Your task to perform on an android device: add a label to a message in the gmail app Image 0: 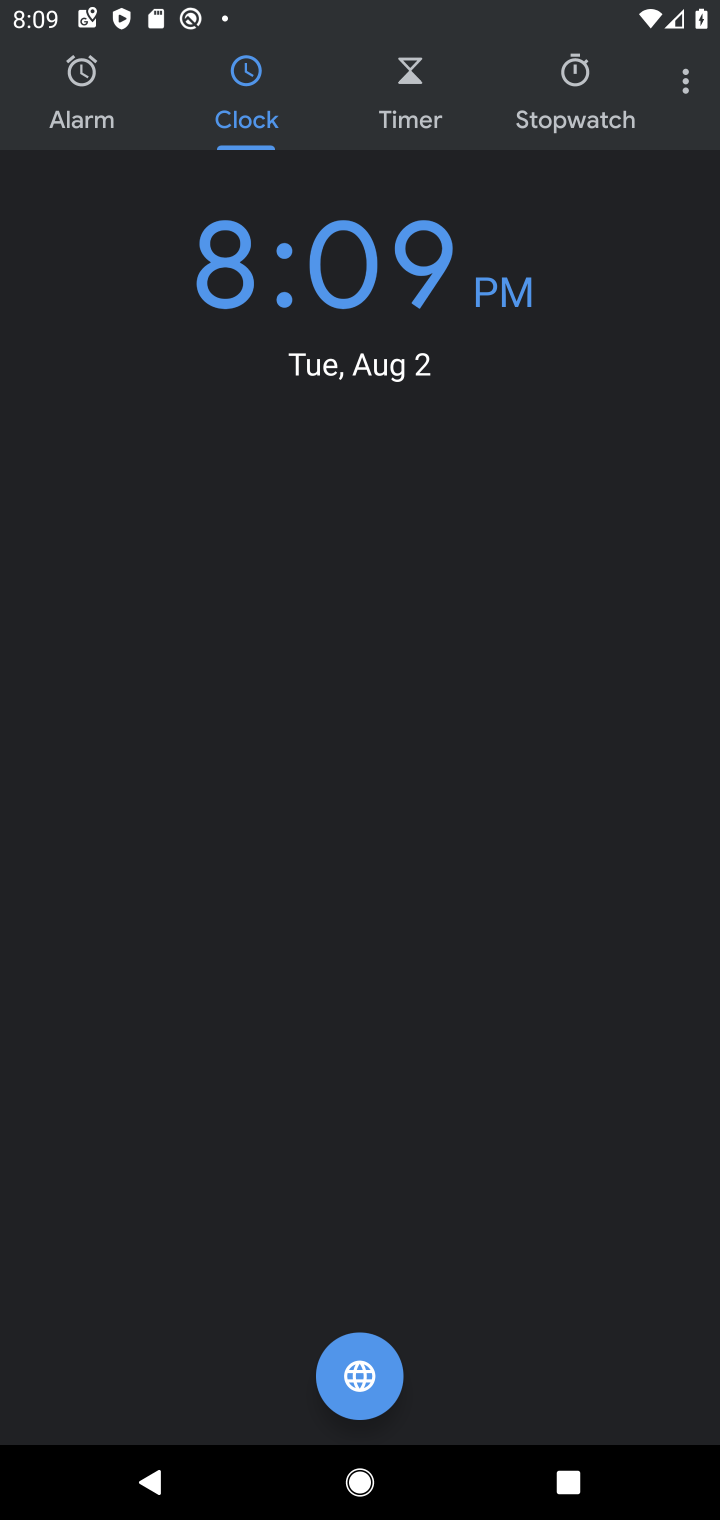
Step 0: press home button
Your task to perform on an android device: add a label to a message in the gmail app Image 1: 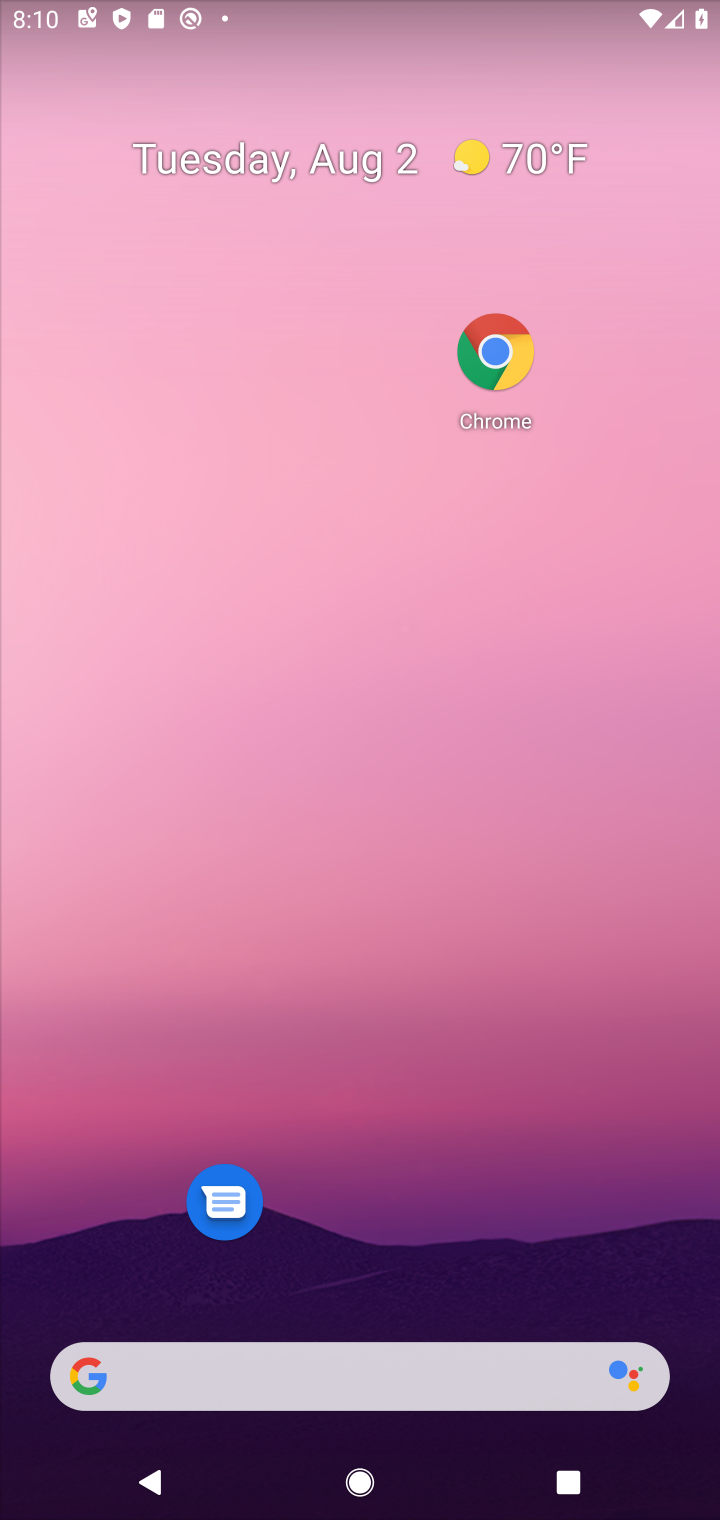
Step 1: drag from (355, 1231) to (409, 33)
Your task to perform on an android device: add a label to a message in the gmail app Image 2: 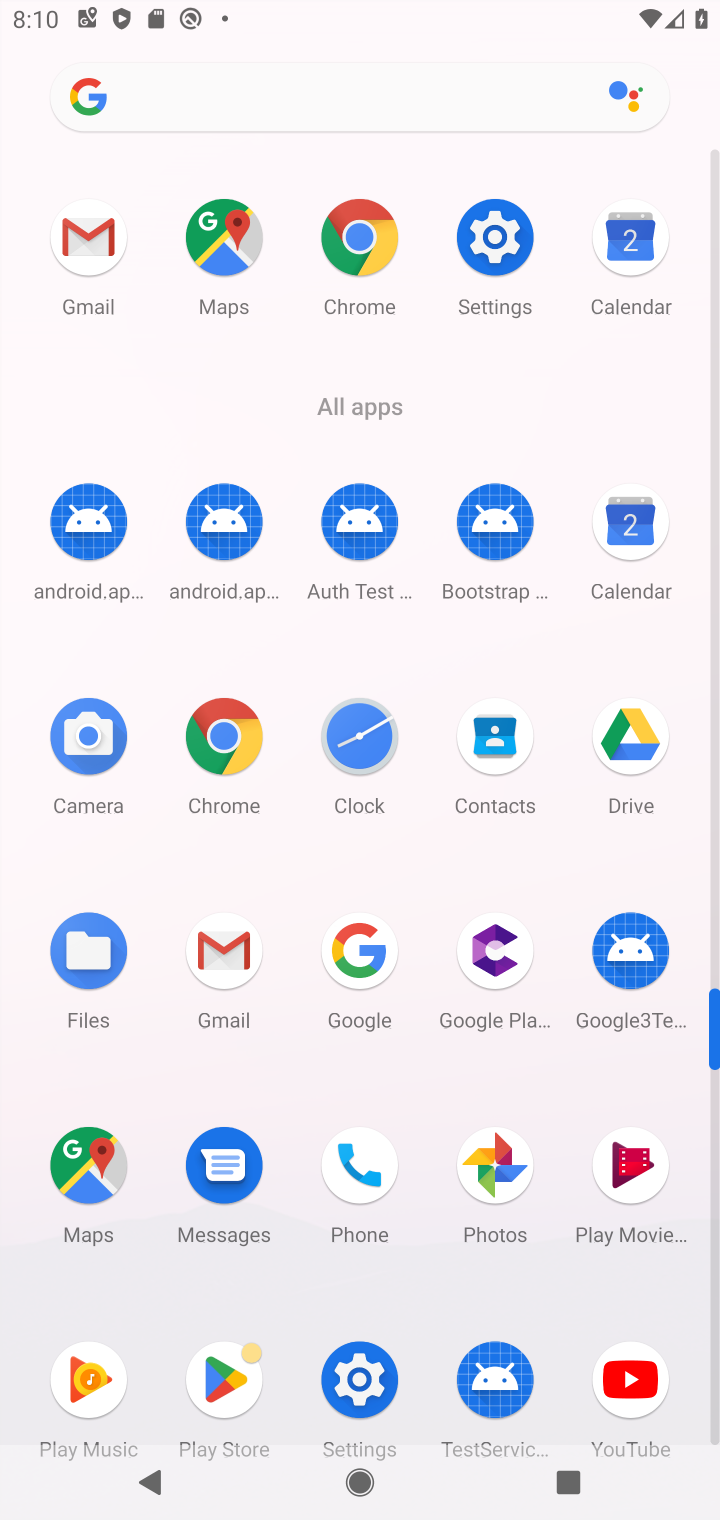
Step 2: click (95, 256)
Your task to perform on an android device: add a label to a message in the gmail app Image 3: 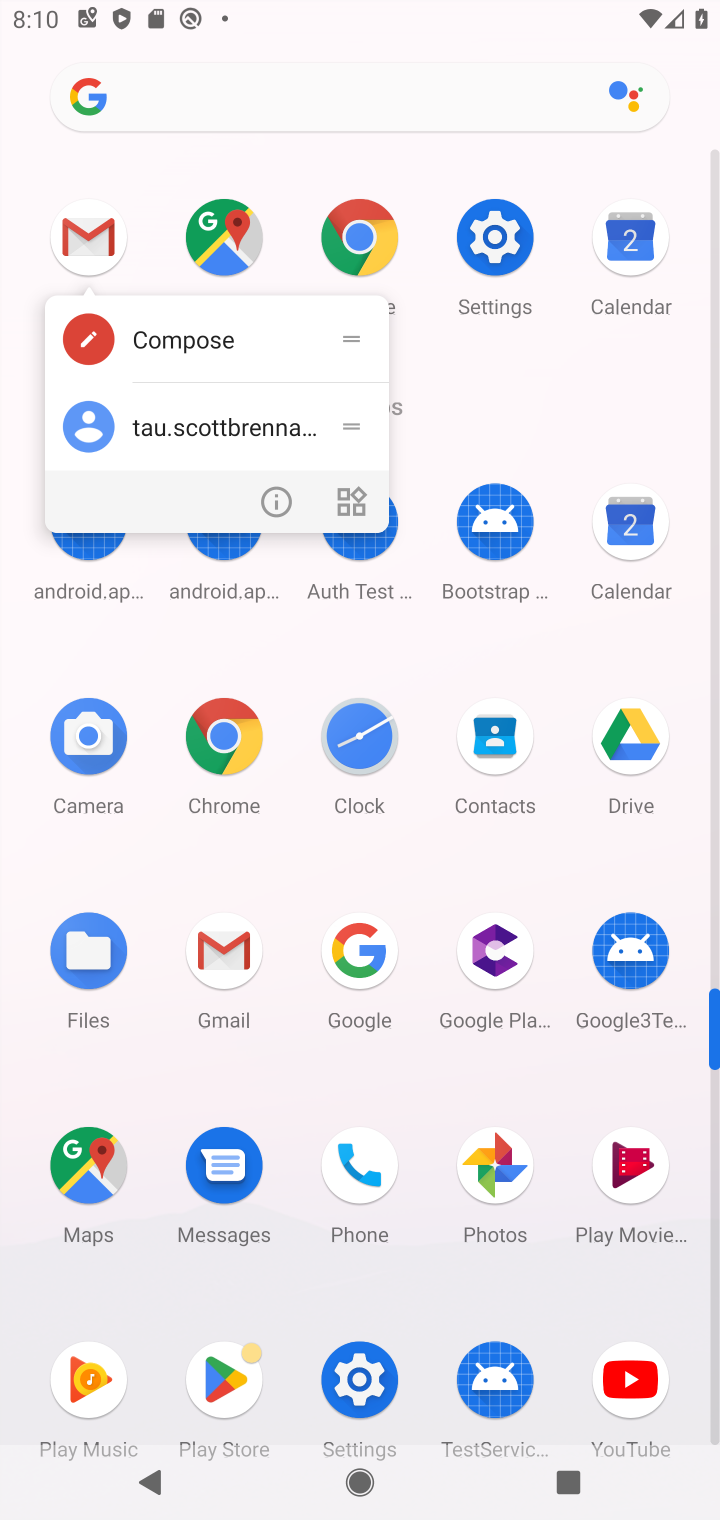
Step 3: click (96, 236)
Your task to perform on an android device: add a label to a message in the gmail app Image 4: 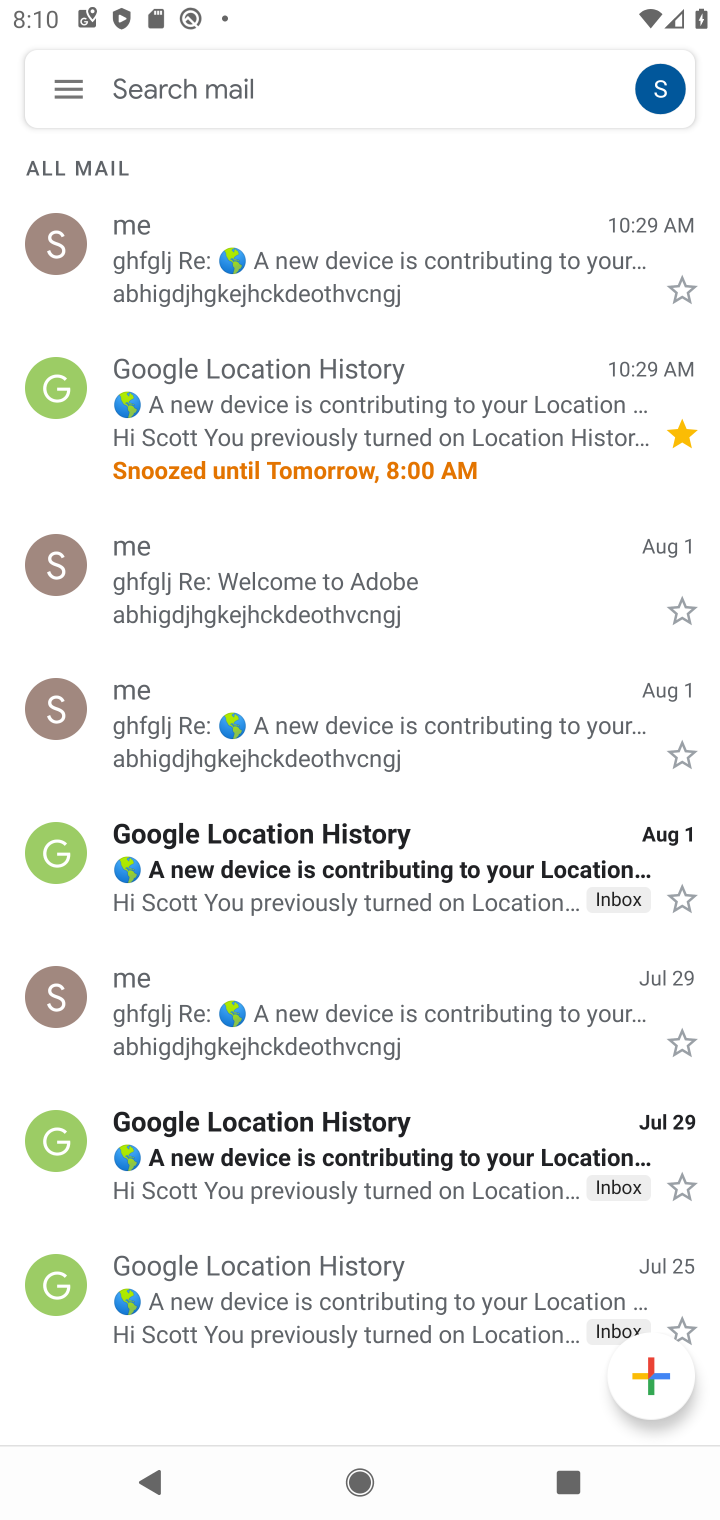
Step 4: click (329, 595)
Your task to perform on an android device: add a label to a message in the gmail app Image 5: 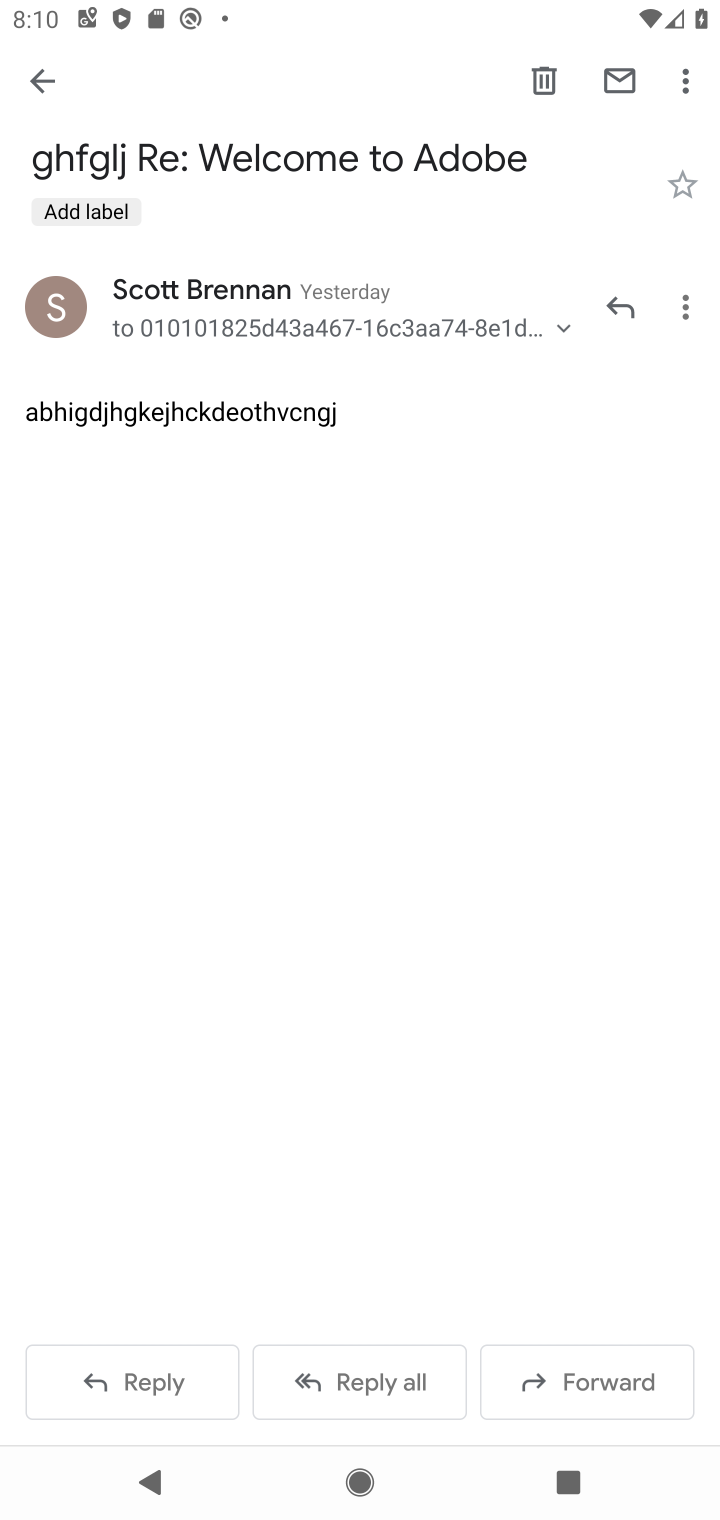
Step 5: click (84, 201)
Your task to perform on an android device: add a label to a message in the gmail app Image 6: 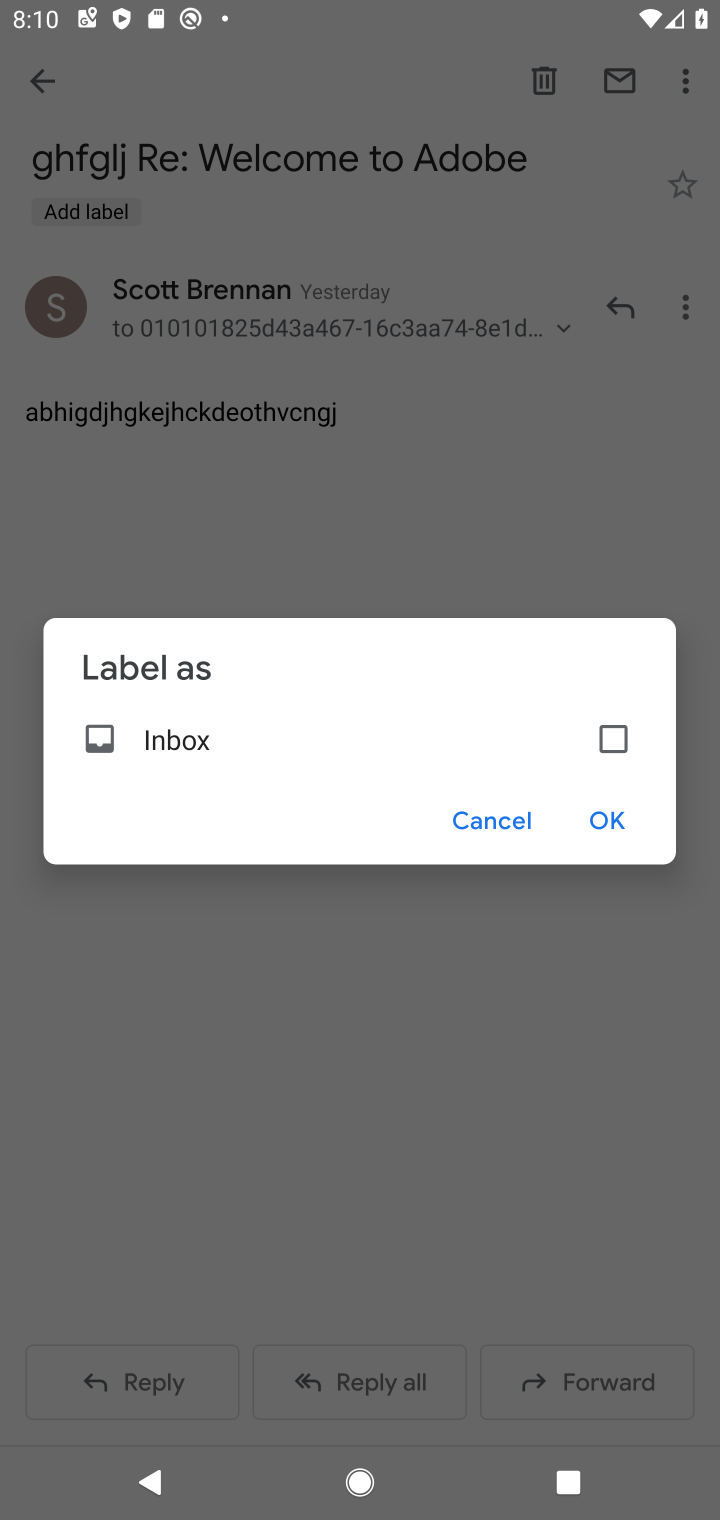
Step 6: click (608, 725)
Your task to perform on an android device: add a label to a message in the gmail app Image 7: 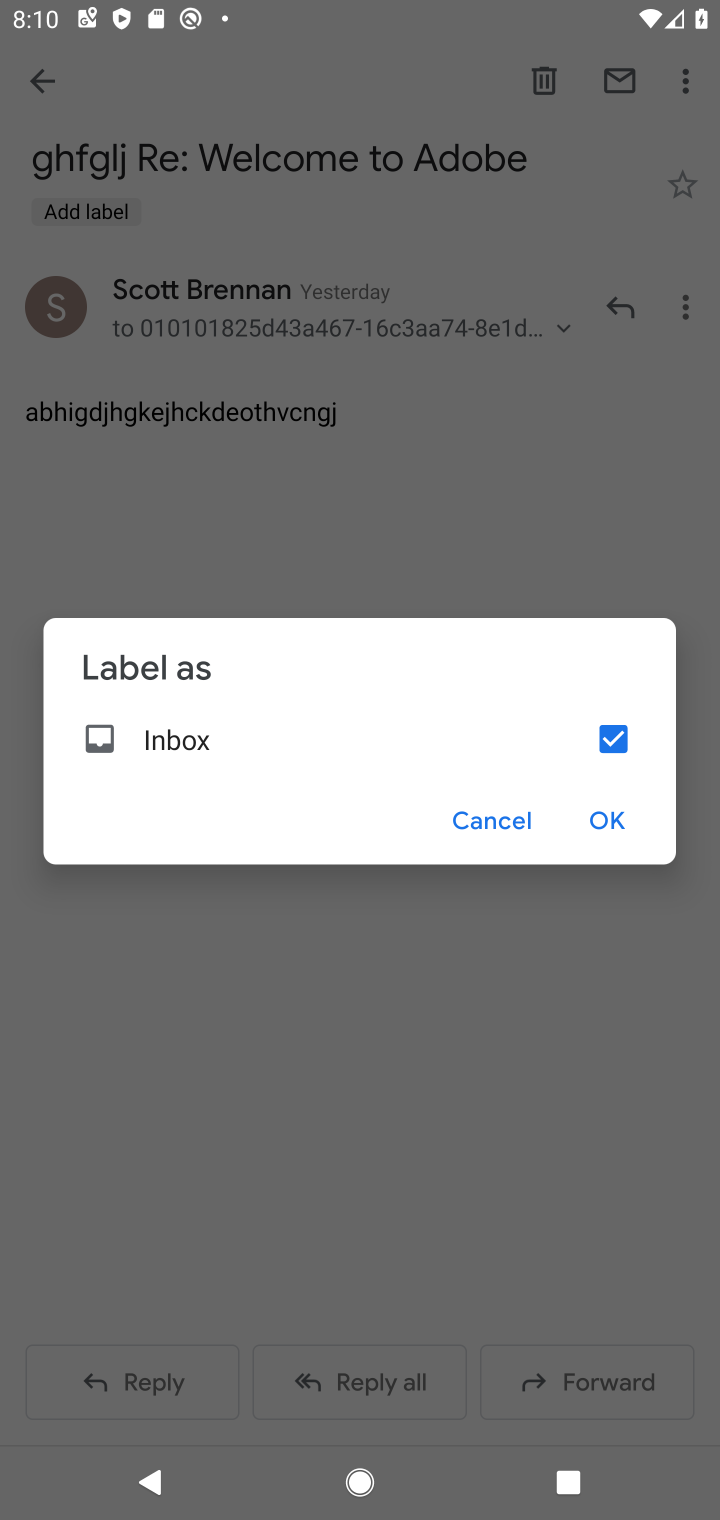
Step 7: click (600, 819)
Your task to perform on an android device: add a label to a message in the gmail app Image 8: 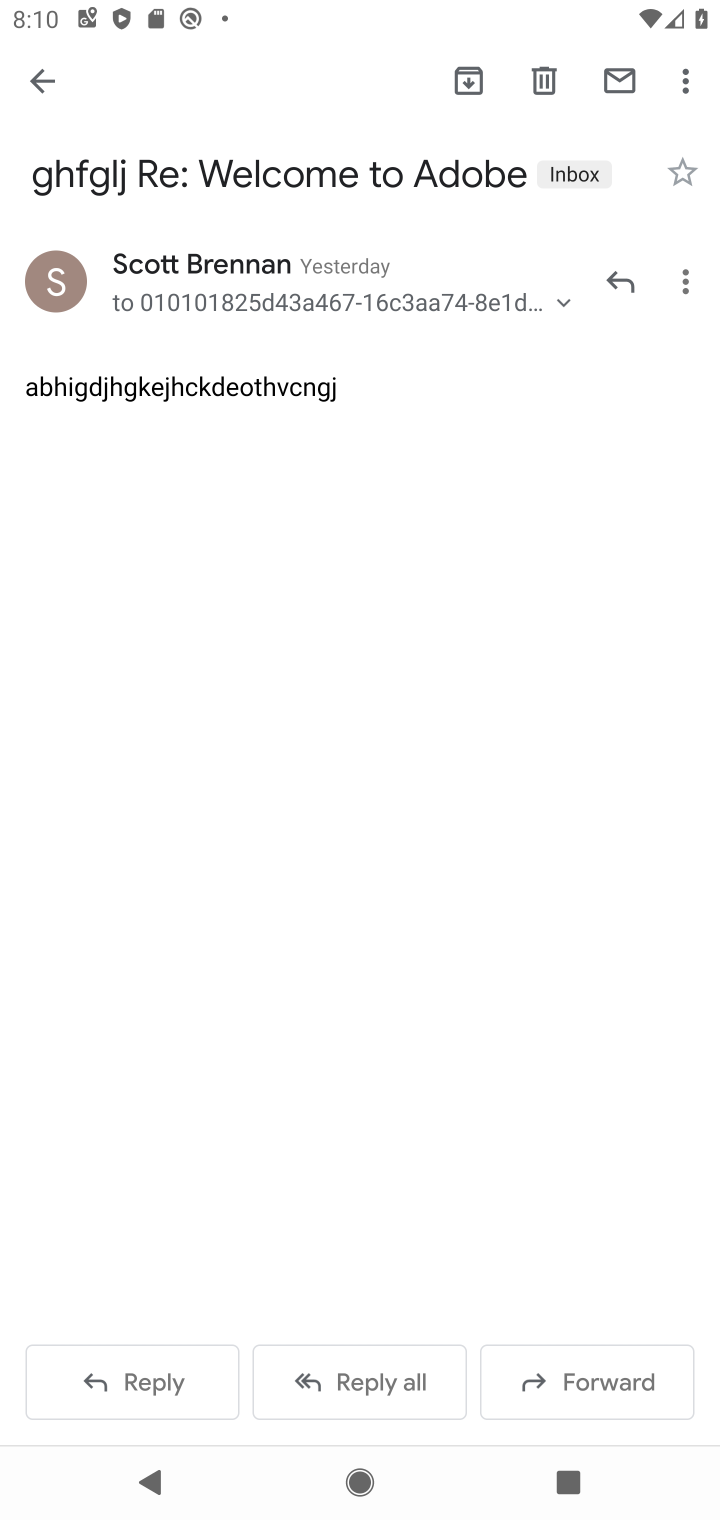
Step 8: task complete